Your task to perform on an android device: toggle airplane mode Image 0: 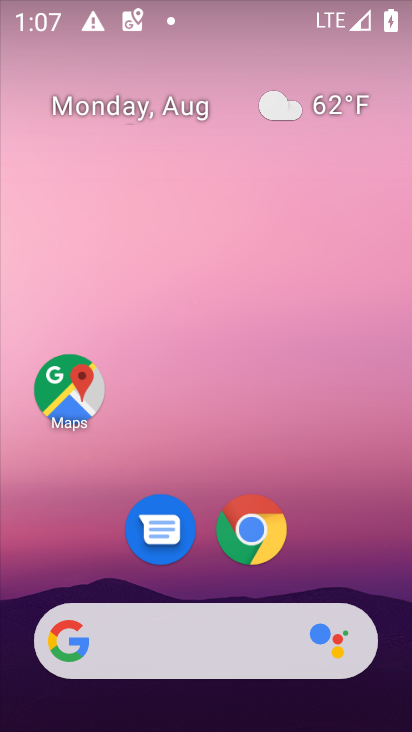
Step 0: drag from (203, 606) to (228, 19)
Your task to perform on an android device: toggle airplane mode Image 1: 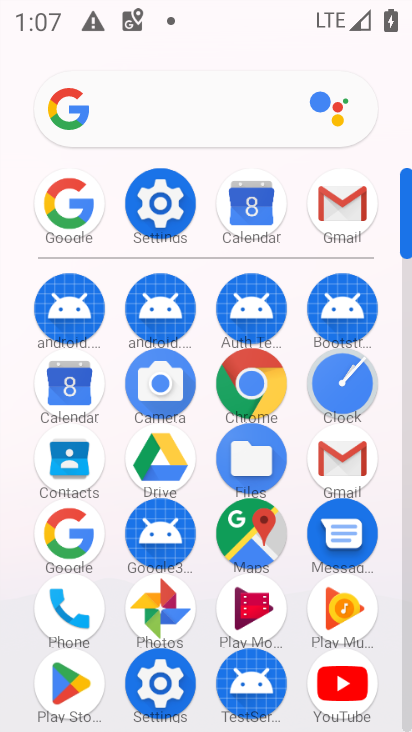
Step 1: click (152, 211)
Your task to perform on an android device: toggle airplane mode Image 2: 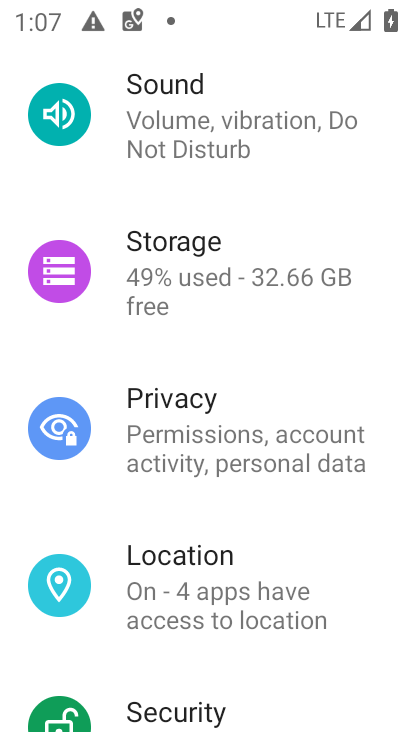
Step 2: drag from (252, 112) to (189, 500)
Your task to perform on an android device: toggle airplane mode Image 3: 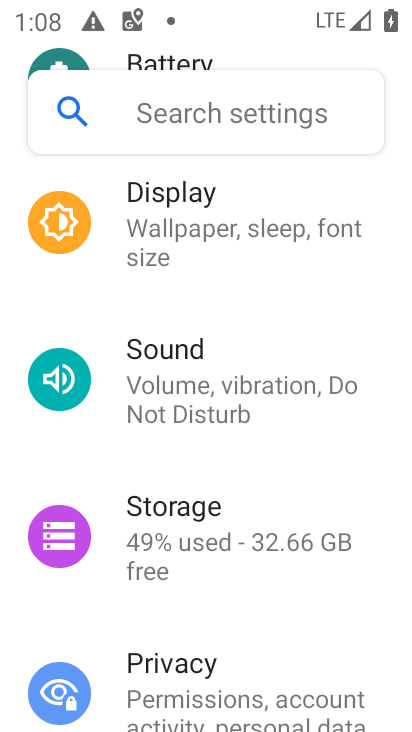
Step 3: drag from (208, 159) to (172, 566)
Your task to perform on an android device: toggle airplane mode Image 4: 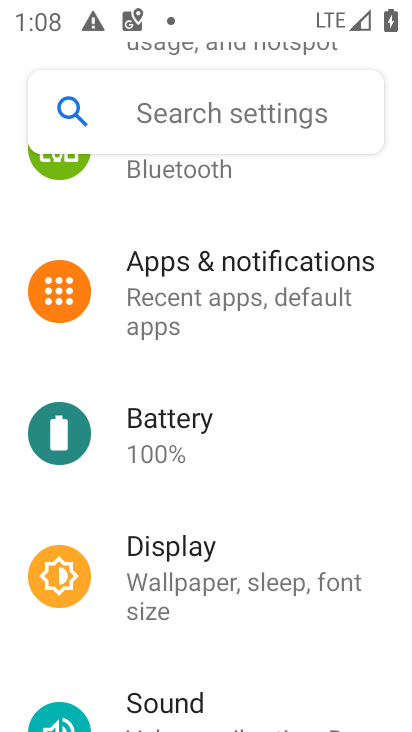
Step 4: drag from (267, 142) to (260, 560)
Your task to perform on an android device: toggle airplane mode Image 5: 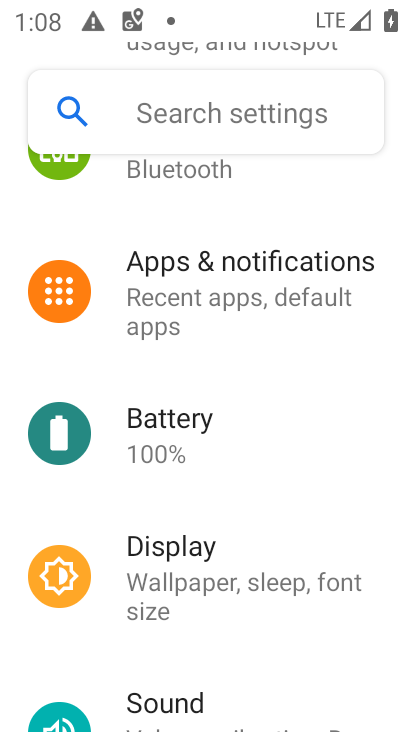
Step 5: drag from (205, 178) to (205, 579)
Your task to perform on an android device: toggle airplane mode Image 6: 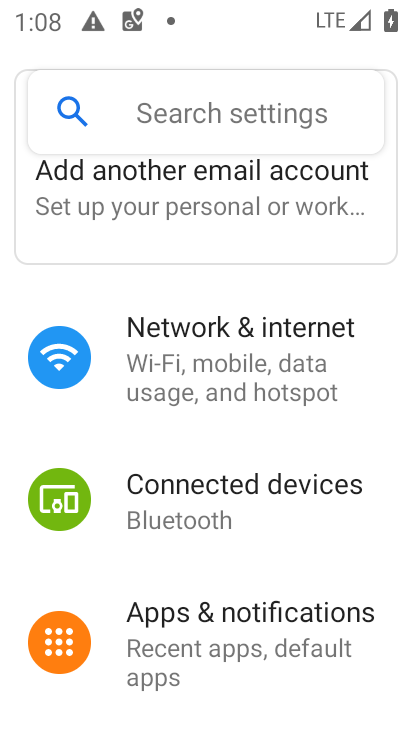
Step 6: click (172, 348)
Your task to perform on an android device: toggle airplane mode Image 7: 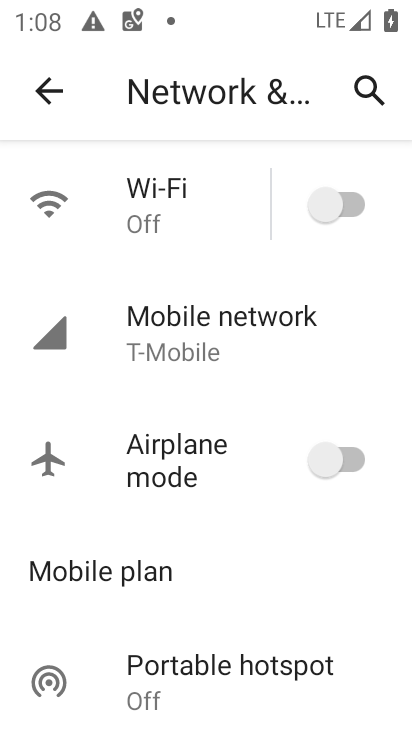
Step 7: click (347, 460)
Your task to perform on an android device: toggle airplane mode Image 8: 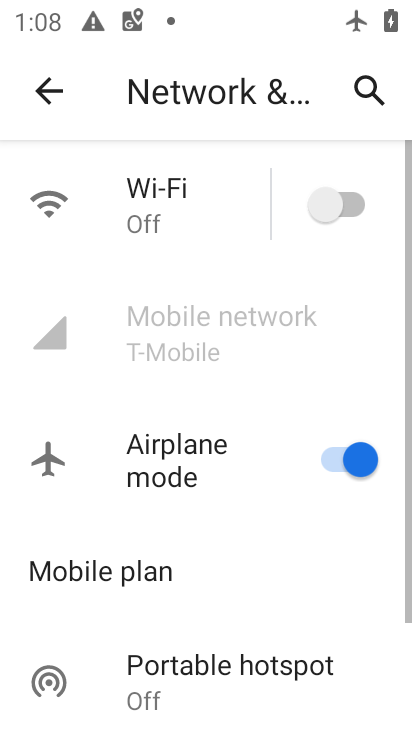
Step 8: task complete